Your task to perform on an android device: check google app version Image 0: 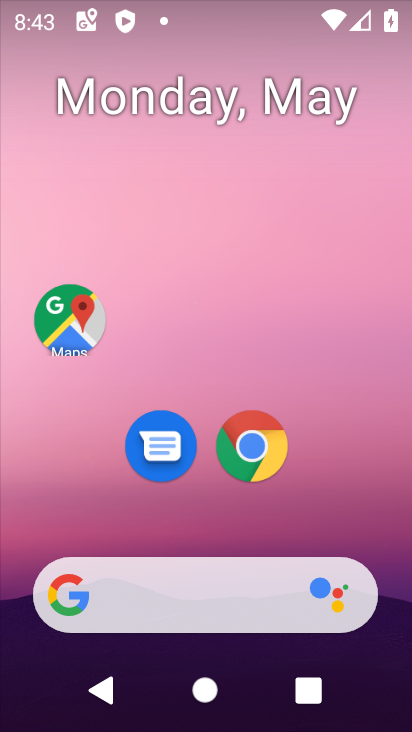
Step 0: drag from (210, 531) to (138, 35)
Your task to perform on an android device: check google app version Image 1: 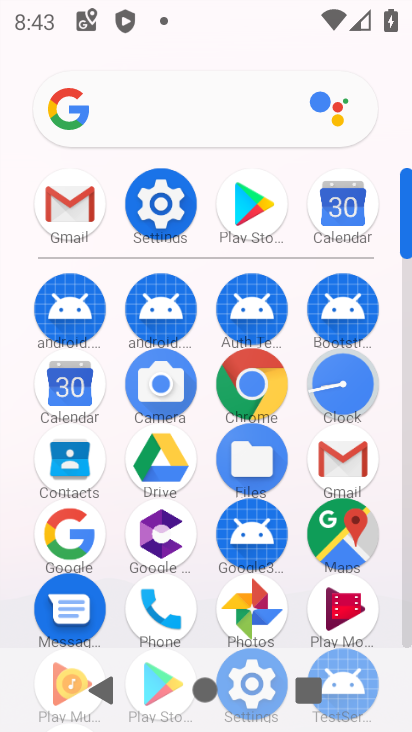
Step 1: drag from (203, 568) to (225, 206)
Your task to perform on an android device: check google app version Image 2: 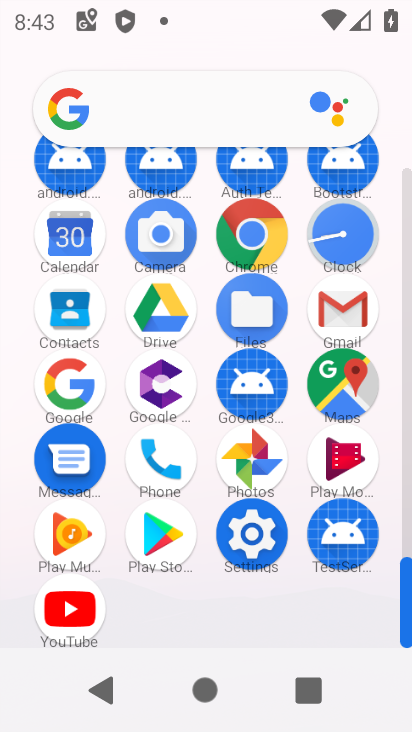
Step 2: click (71, 376)
Your task to perform on an android device: check google app version Image 3: 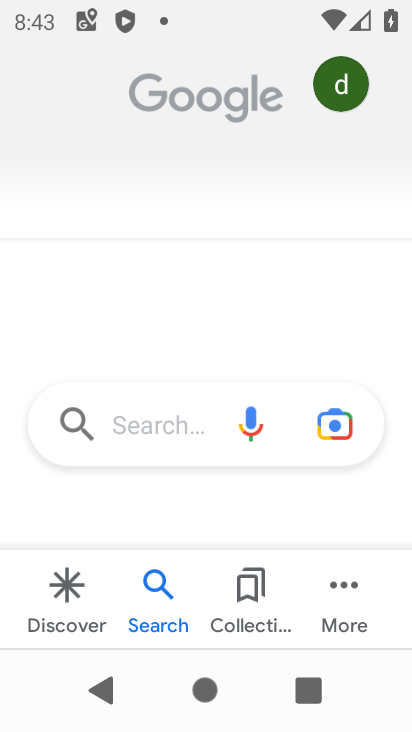
Step 3: click (353, 592)
Your task to perform on an android device: check google app version Image 4: 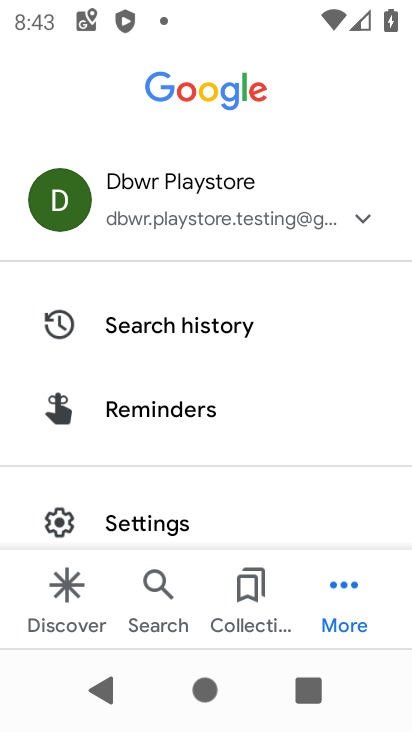
Step 4: click (209, 517)
Your task to perform on an android device: check google app version Image 5: 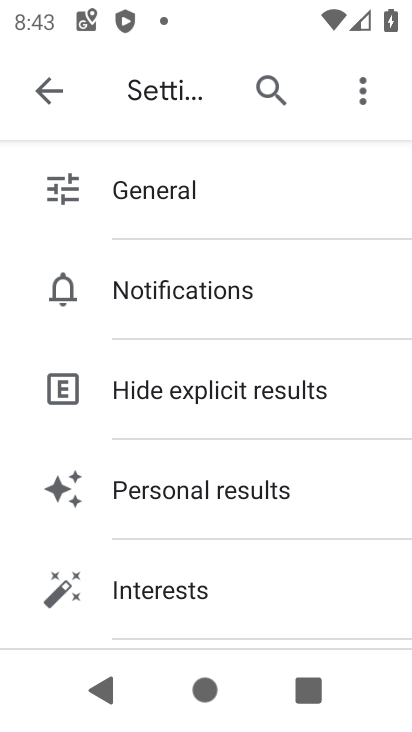
Step 5: drag from (246, 575) to (280, 191)
Your task to perform on an android device: check google app version Image 6: 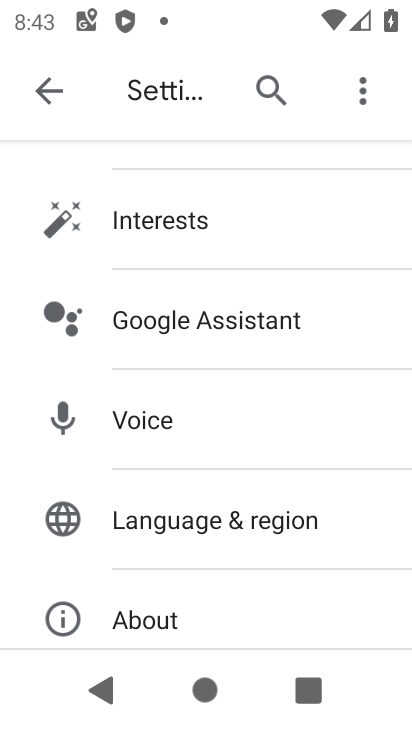
Step 6: click (197, 611)
Your task to perform on an android device: check google app version Image 7: 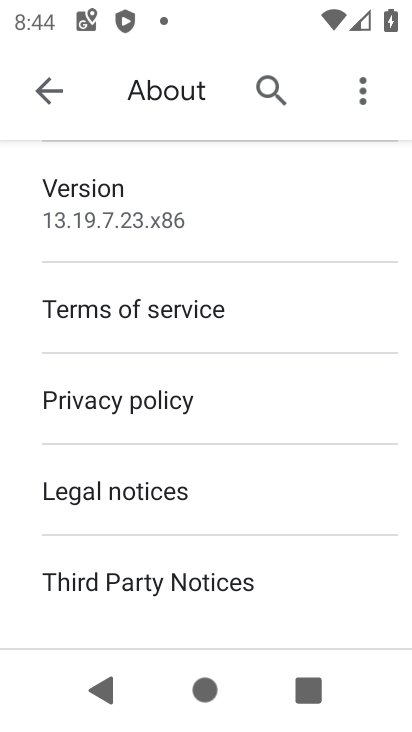
Step 7: task complete